Your task to perform on an android device: Search for sushi restaurants on Maps Image 0: 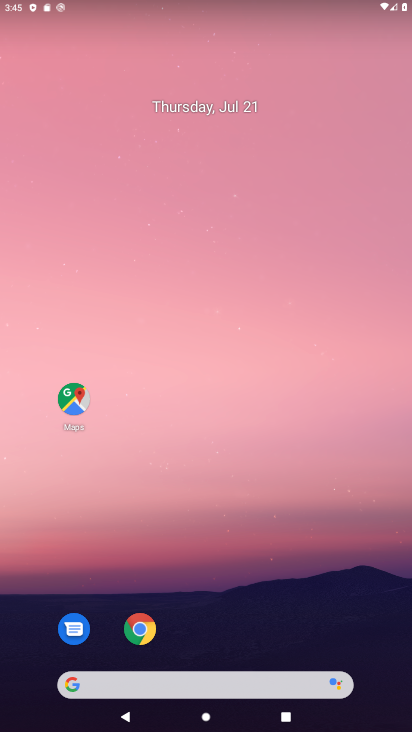
Step 0: drag from (210, 535) to (271, 0)
Your task to perform on an android device: Search for sushi restaurants on Maps Image 1: 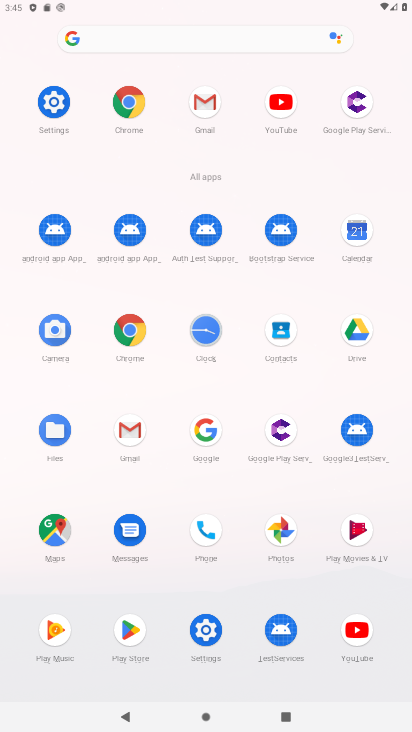
Step 1: click (46, 530)
Your task to perform on an android device: Search for sushi restaurants on Maps Image 2: 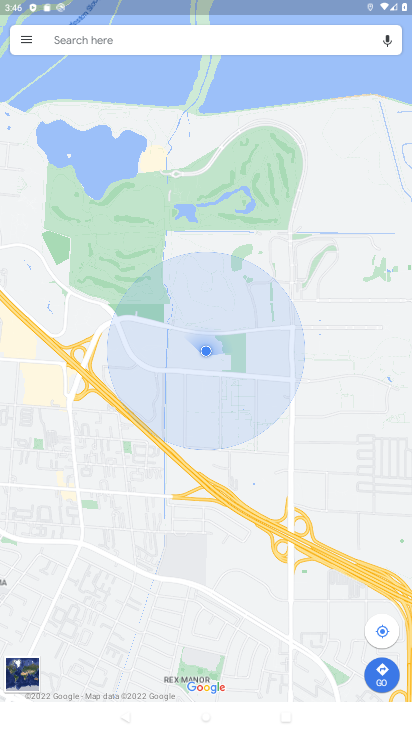
Step 2: click (133, 31)
Your task to perform on an android device: Search for sushi restaurants on Maps Image 3: 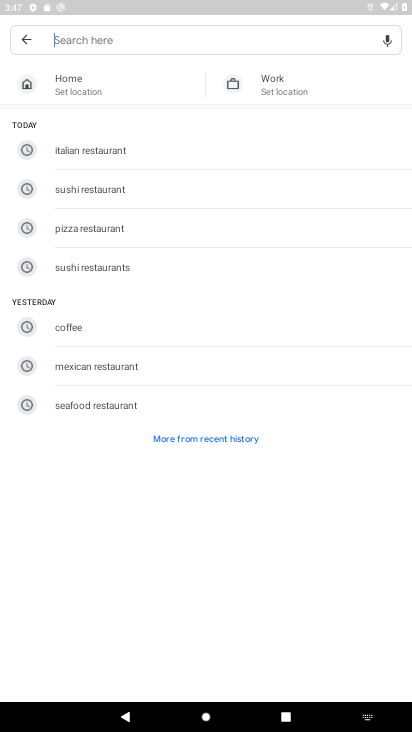
Step 3: type "sushi restaurant"
Your task to perform on an android device: Search for sushi restaurants on Maps Image 4: 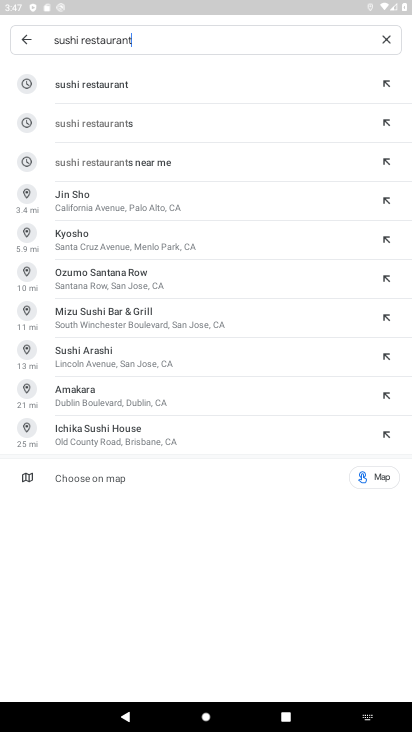
Step 4: click (152, 87)
Your task to perform on an android device: Search for sushi restaurants on Maps Image 5: 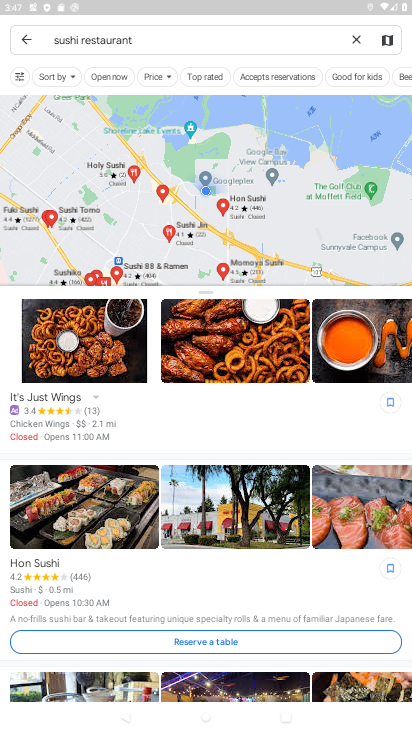
Step 5: task complete